Your task to perform on an android device: Add dell xps to the cart on amazon, then select checkout. Image 0: 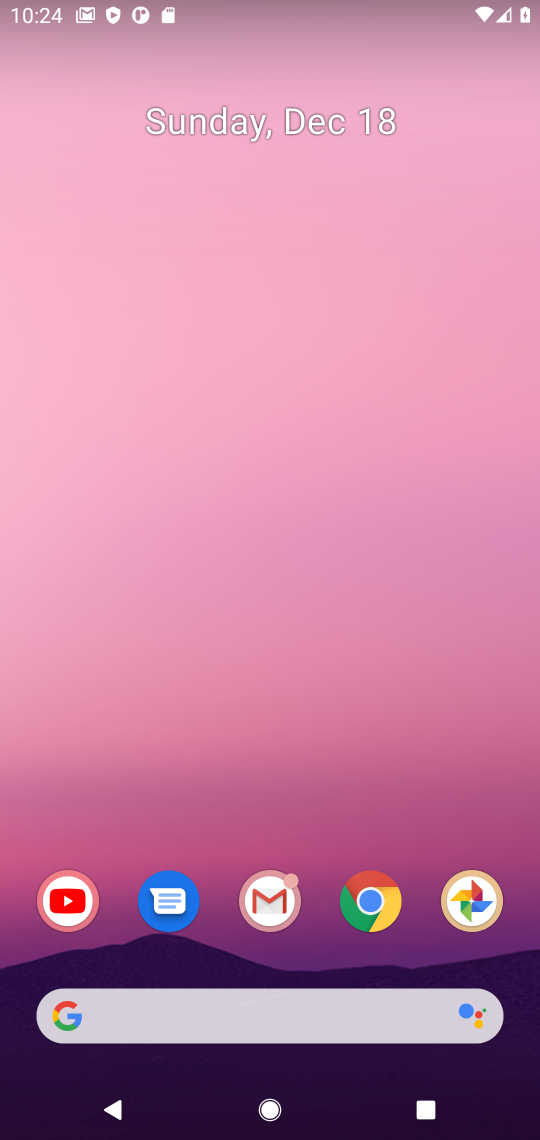
Step 0: click (297, 1002)
Your task to perform on an android device: Add dell xps to the cart on amazon, then select checkout. Image 1: 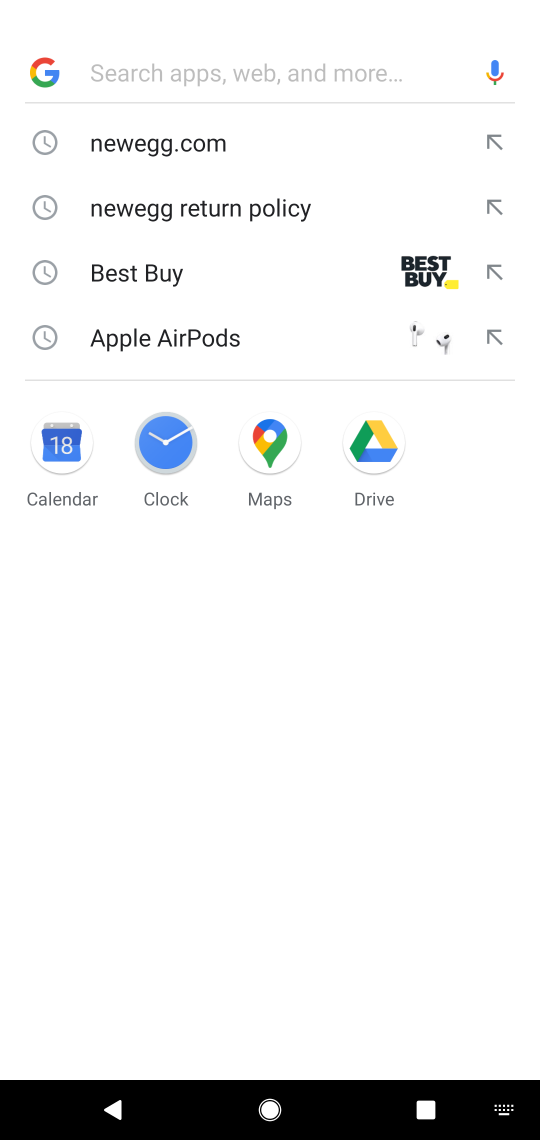
Step 1: type "amazon"
Your task to perform on an android device: Add dell xps to the cart on amazon, then select checkout. Image 2: 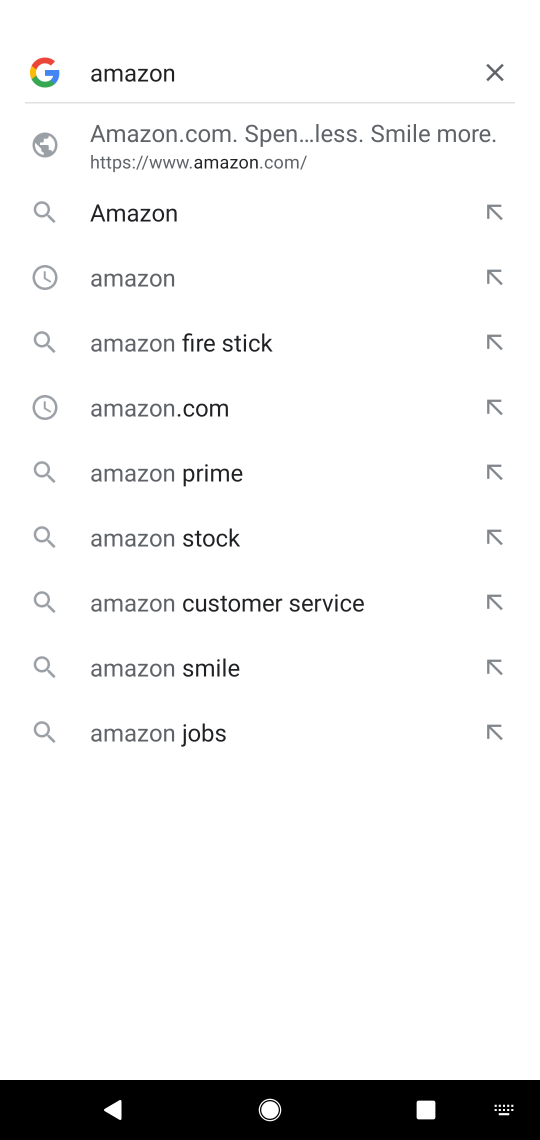
Step 2: click (137, 146)
Your task to perform on an android device: Add dell xps to the cart on amazon, then select checkout. Image 3: 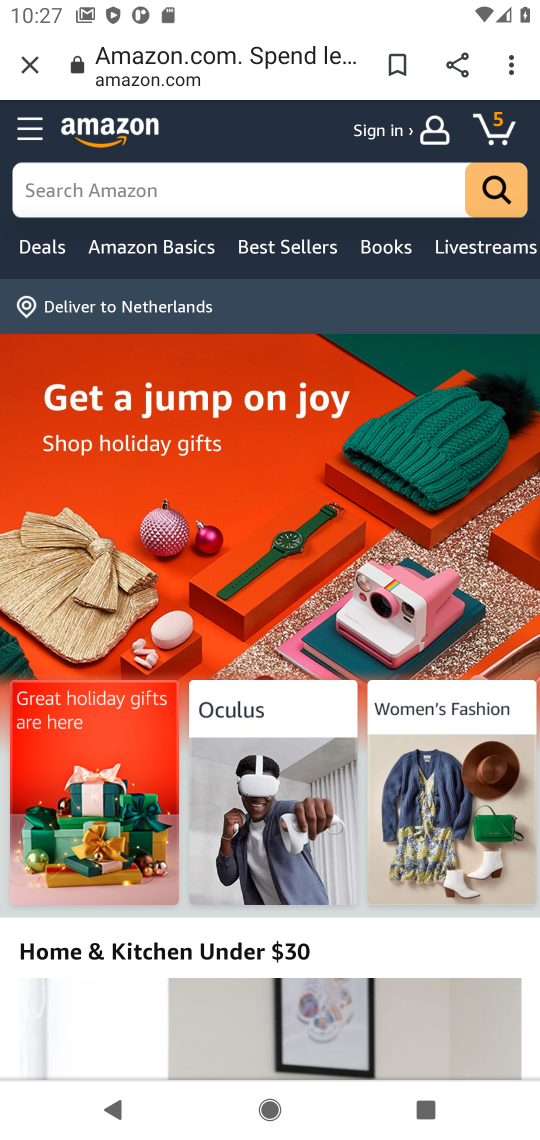
Step 3: click (285, 183)
Your task to perform on an android device: Add dell xps to the cart on amazon, then select checkout. Image 4: 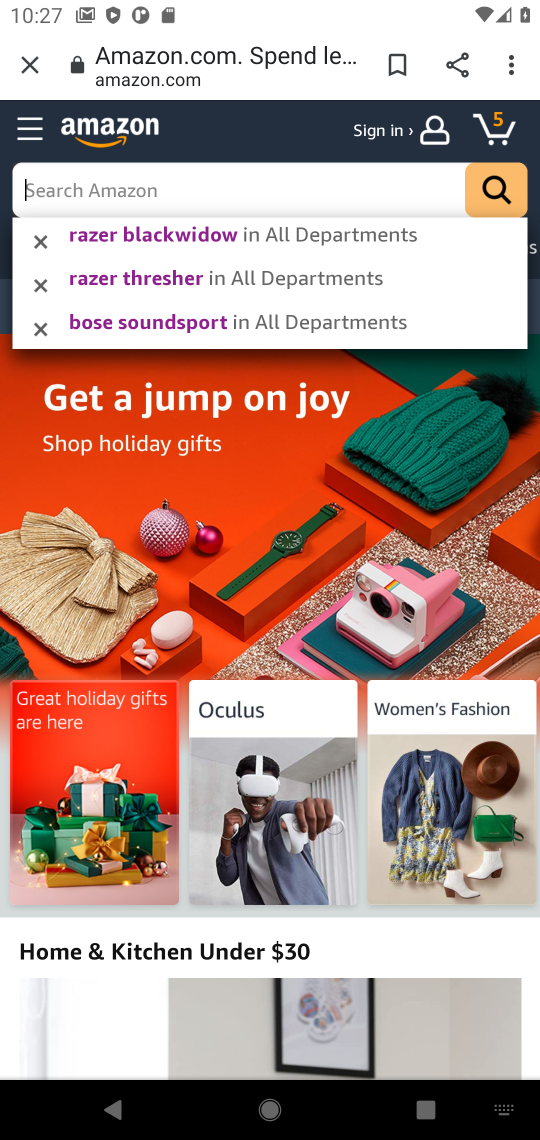
Step 4: type "dell xps"
Your task to perform on an android device: Add dell xps to the cart on amazon, then select checkout. Image 5: 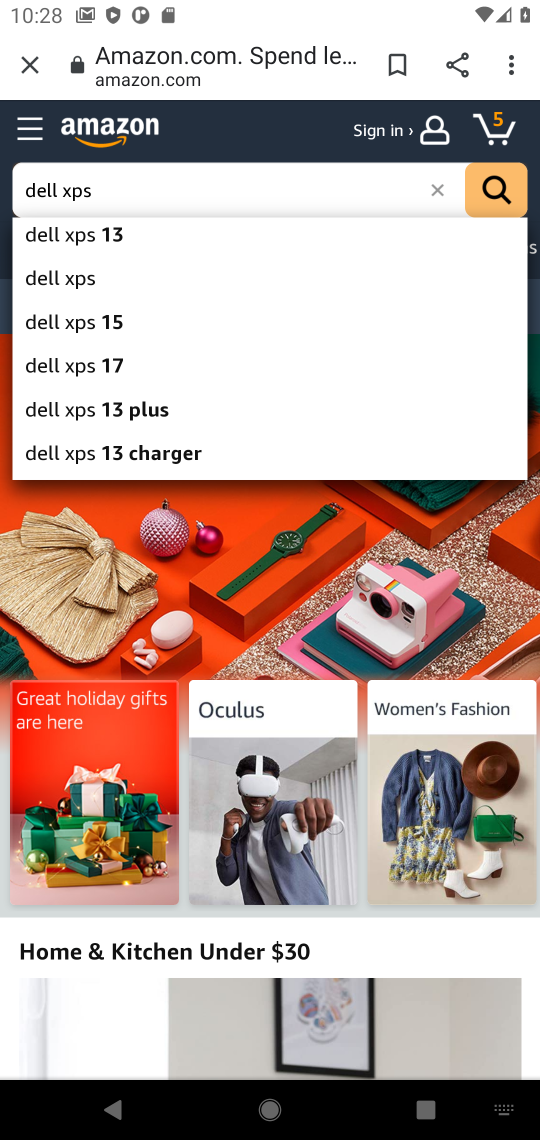
Step 5: click (43, 279)
Your task to perform on an android device: Add dell xps to the cart on amazon, then select checkout. Image 6: 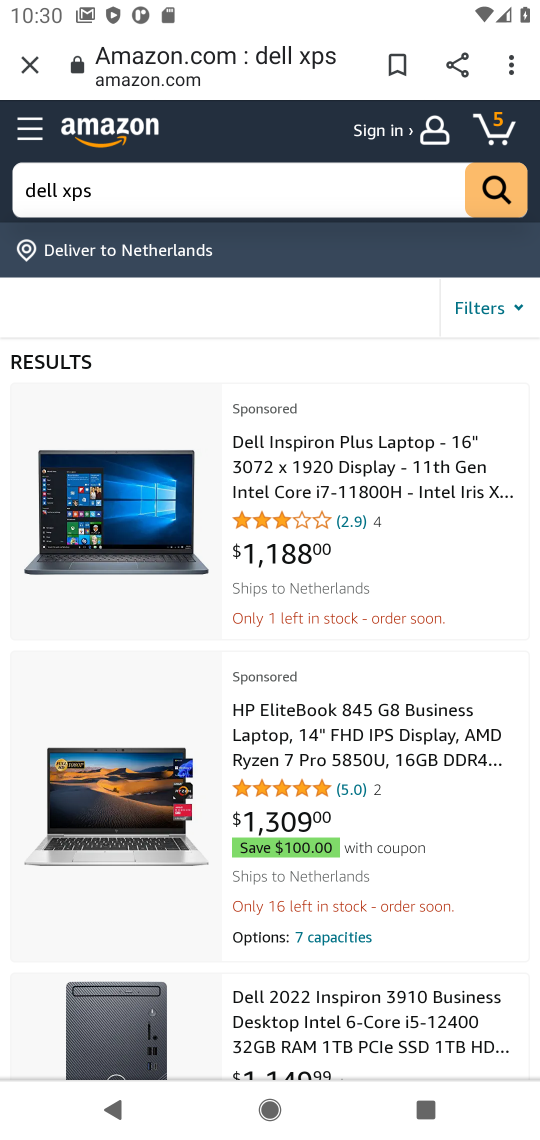
Step 6: click (203, 510)
Your task to perform on an android device: Add dell xps to the cart on amazon, then select checkout. Image 7: 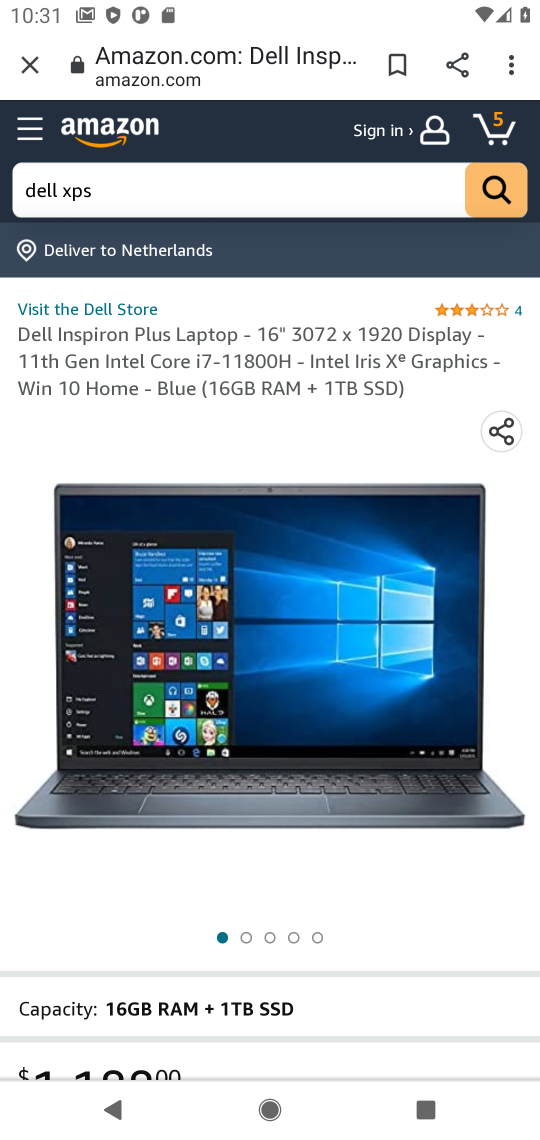
Step 7: task complete